Your task to perform on an android device: Go to Wikipedia Image 0: 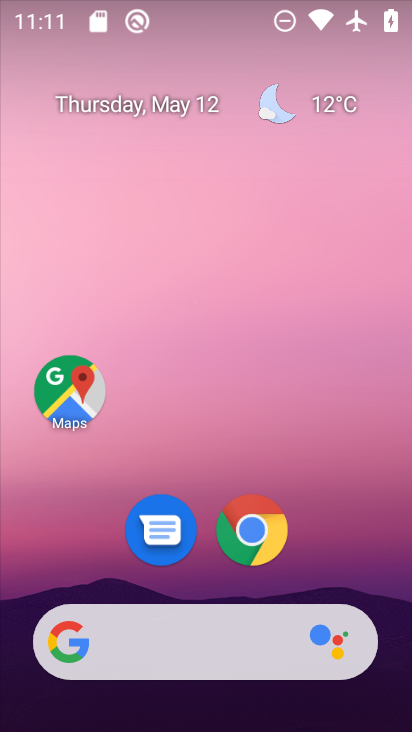
Step 0: press home button
Your task to perform on an android device: Go to Wikipedia Image 1: 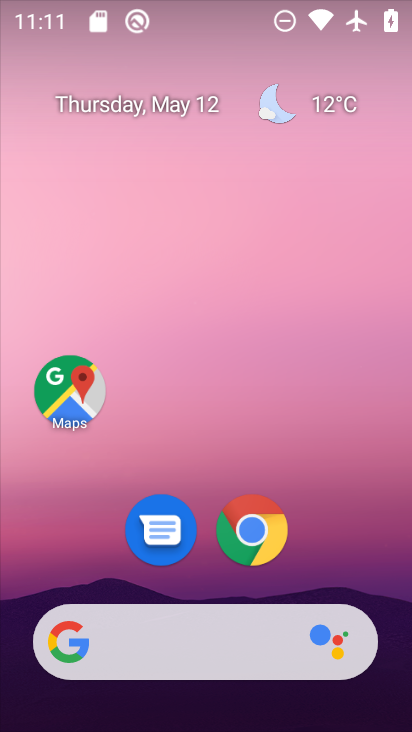
Step 1: click (257, 534)
Your task to perform on an android device: Go to Wikipedia Image 2: 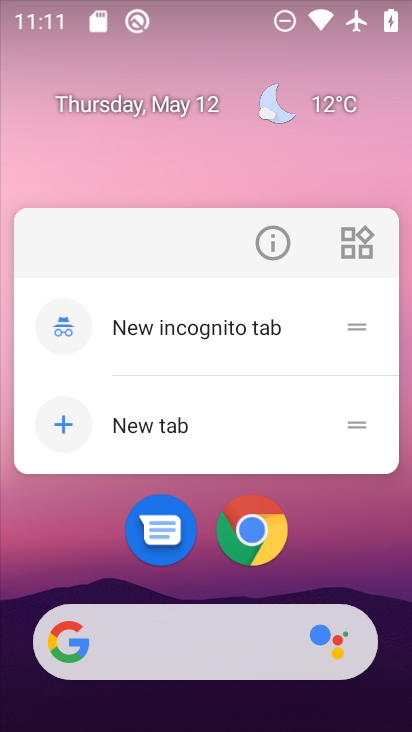
Step 2: click (252, 547)
Your task to perform on an android device: Go to Wikipedia Image 3: 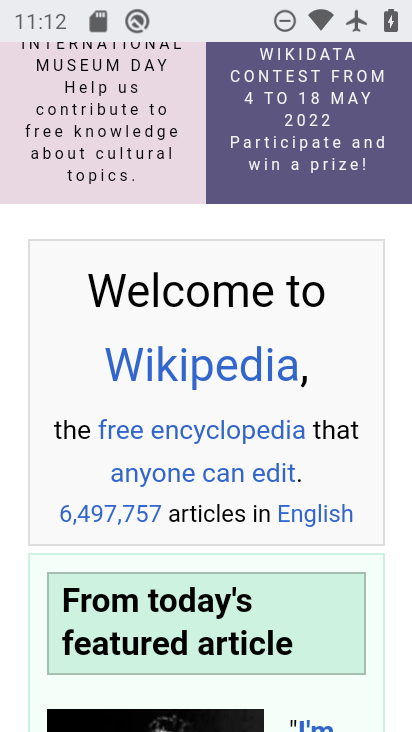
Step 3: task complete